Your task to perform on an android device: What's on my calendar today? Image 0: 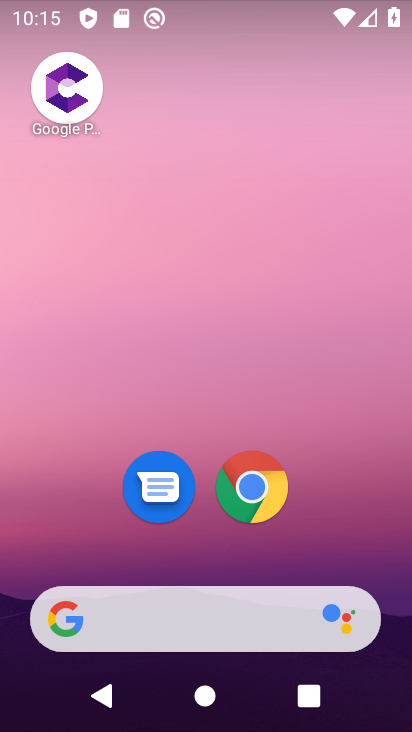
Step 0: drag from (91, 588) to (171, 62)
Your task to perform on an android device: What's on my calendar today? Image 1: 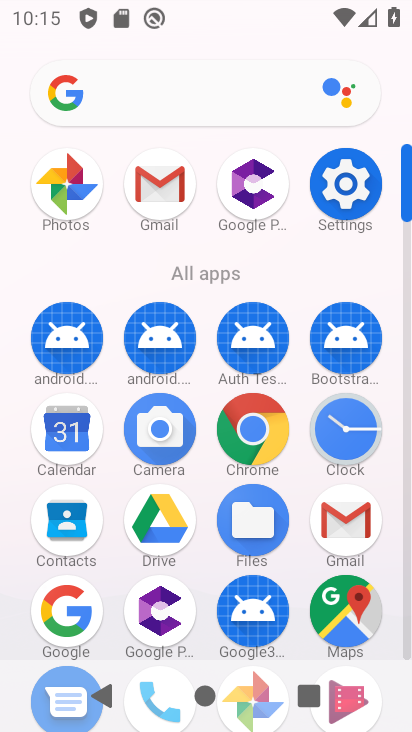
Step 1: click (51, 440)
Your task to perform on an android device: What's on my calendar today? Image 2: 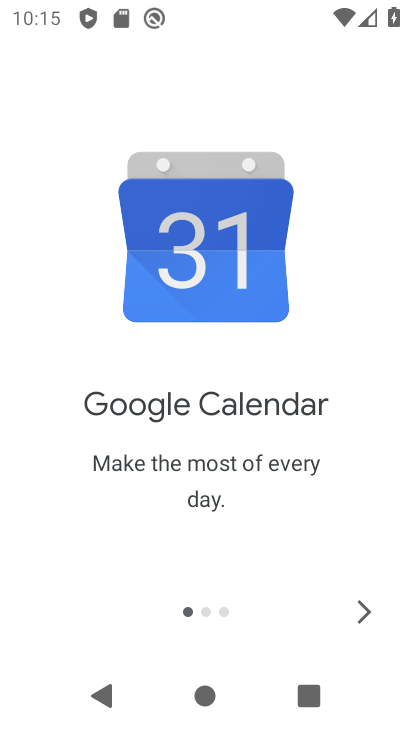
Step 2: click (360, 615)
Your task to perform on an android device: What's on my calendar today? Image 3: 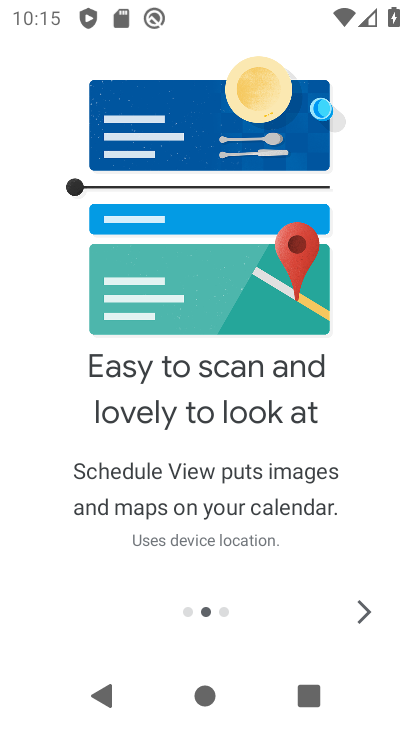
Step 3: click (360, 615)
Your task to perform on an android device: What's on my calendar today? Image 4: 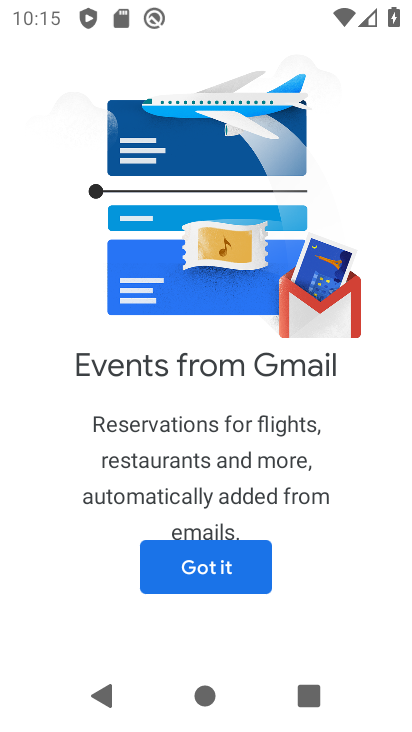
Step 4: click (190, 579)
Your task to perform on an android device: What's on my calendar today? Image 5: 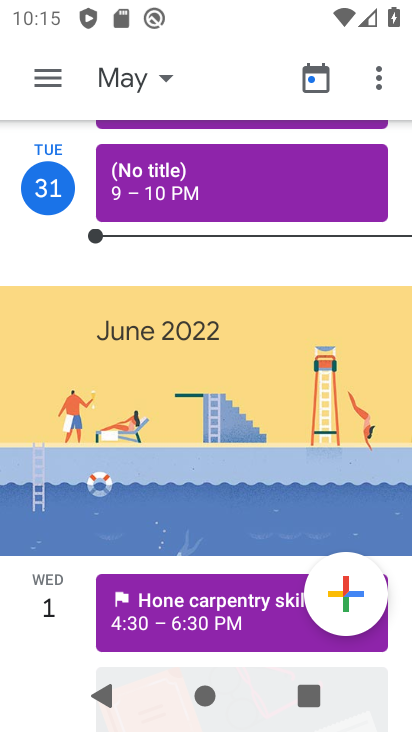
Step 5: click (67, 200)
Your task to perform on an android device: What's on my calendar today? Image 6: 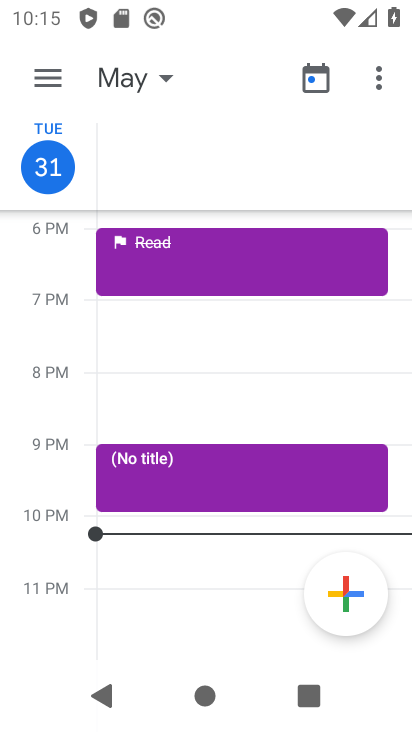
Step 6: task complete